Your task to perform on an android device: Go to CNN.com Image 0: 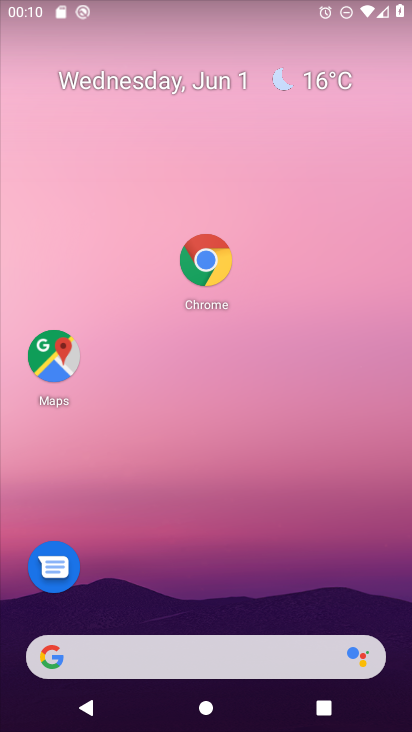
Step 0: drag from (238, 637) to (255, 249)
Your task to perform on an android device: Go to CNN.com Image 1: 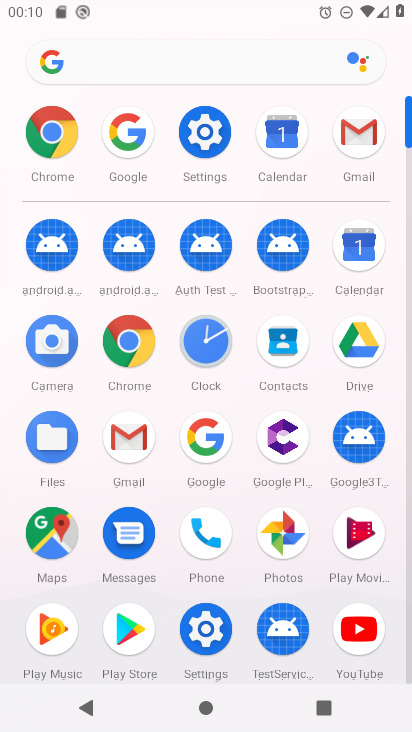
Step 1: click (206, 440)
Your task to perform on an android device: Go to CNN.com Image 2: 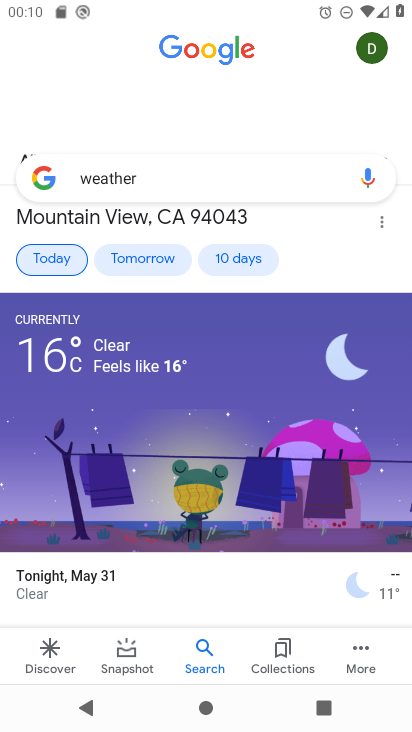
Step 2: click (148, 169)
Your task to perform on an android device: Go to CNN.com Image 3: 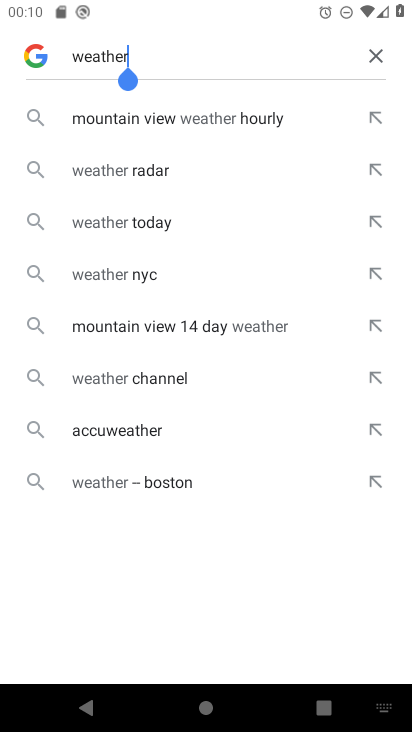
Step 3: click (374, 57)
Your task to perform on an android device: Go to CNN.com Image 4: 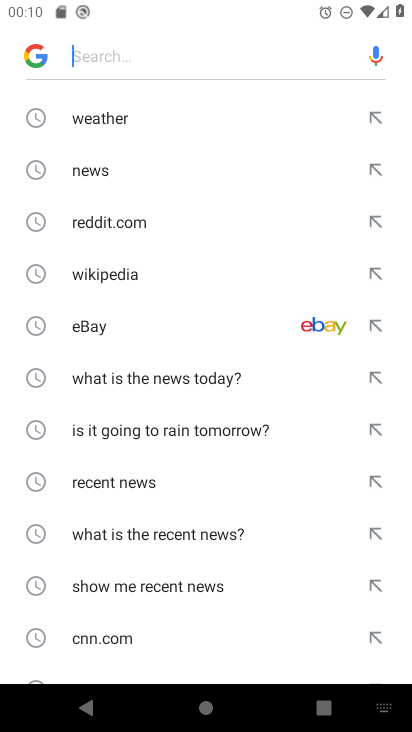
Step 4: click (112, 634)
Your task to perform on an android device: Go to CNN.com Image 5: 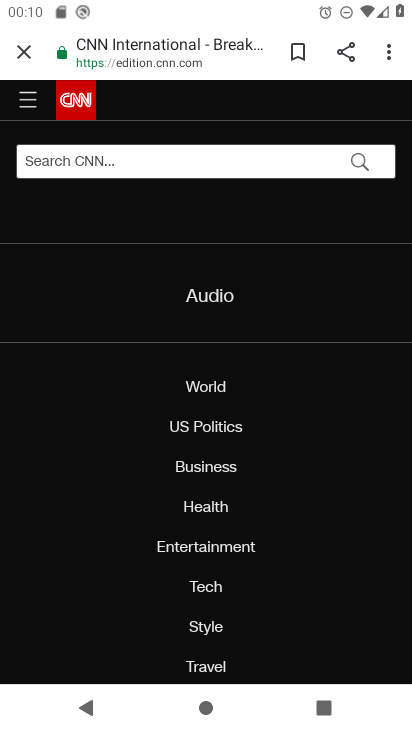
Step 5: task complete